Your task to perform on an android device: change alarm snooze length Image 0: 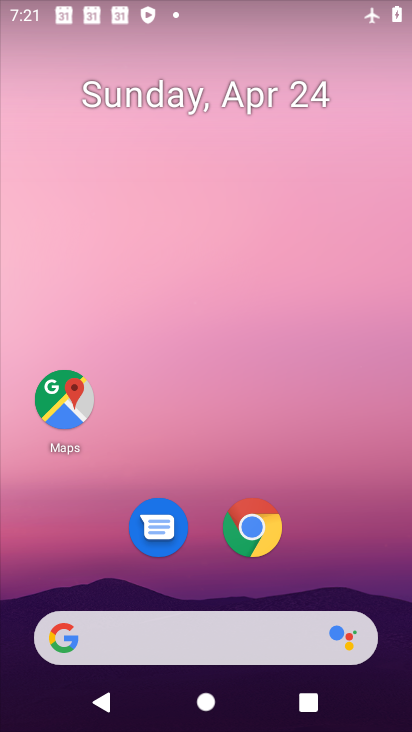
Step 0: drag from (358, 576) to (265, 79)
Your task to perform on an android device: change alarm snooze length Image 1: 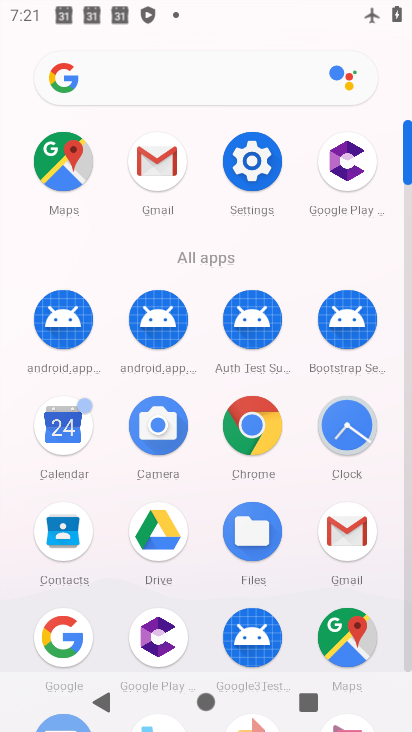
Step 1: click (336, 431)
Your task to perform on an android device: change alarm snooze length Image 2: 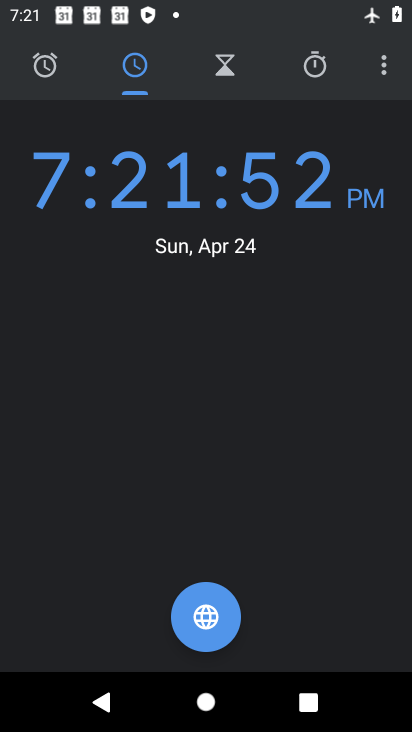
Step 2: click (377, 66)
Your task to perform on an android device: change alarm snooze length Image 3: 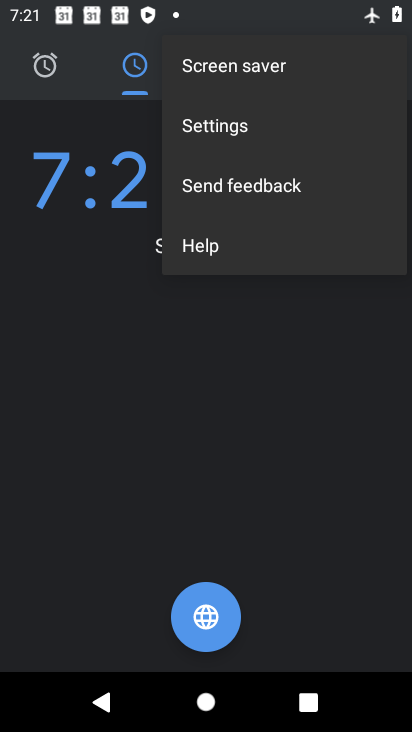
Step 3: click (306, 130)
Your task to perform on an android device: change alarm snooze length Image 4: 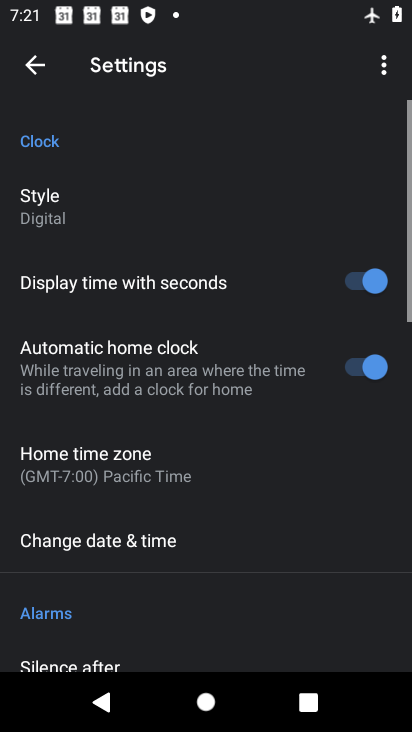
Step 4: drag from (118, 587) to (173, 83)
Your task to perform on an android device: change alarm snooze length Image 5: 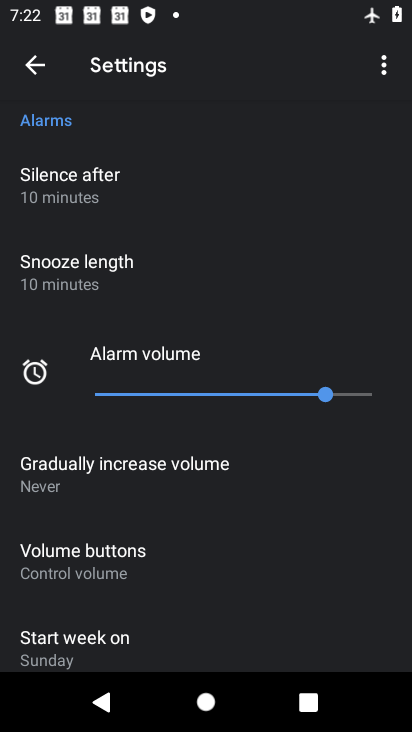
Step 5: click (154, 294)
Your task to perform on an android device: change alarm snooze length Image 6: 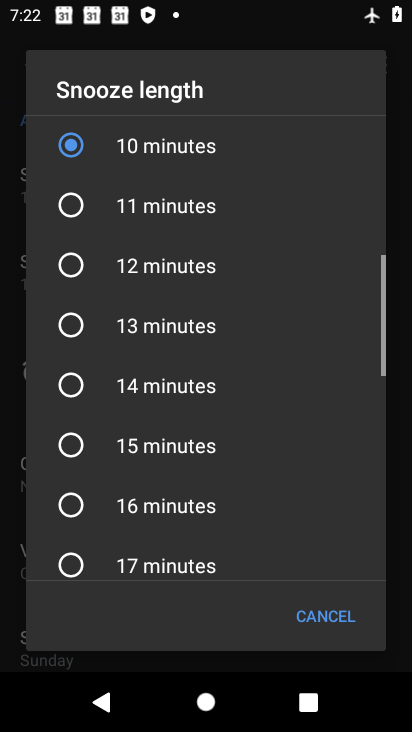
Step 6: click (154, 294)
Your task to perform on an android device: change alarm snooze length Image 7: 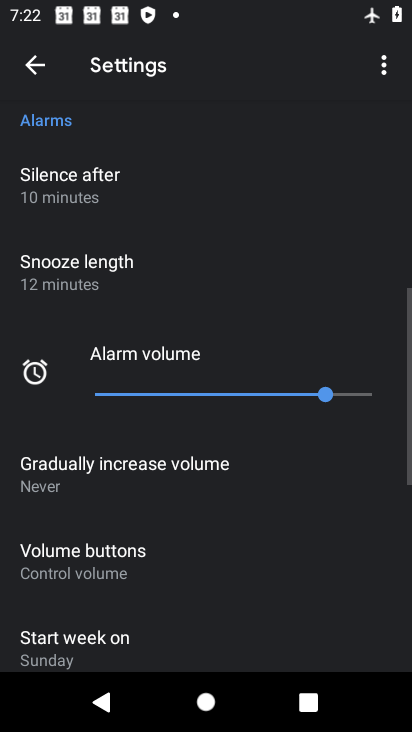
Step 7: task complete